Your task to perform on an android device: Open Google Chrome and click the shortcut for Amazon.com Image 0: 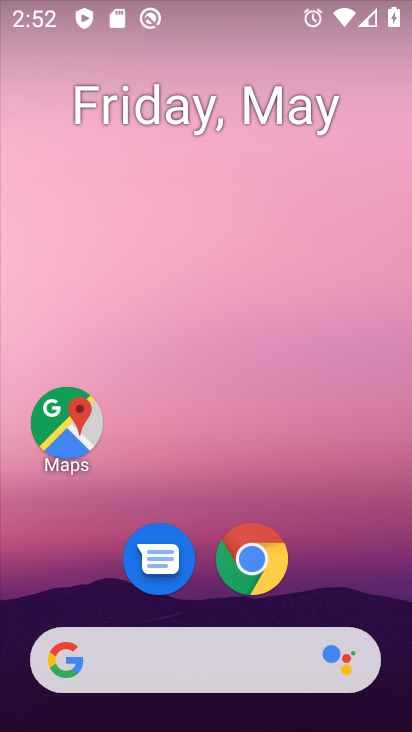
Step 0: drag from (317, 575) to (229, 227)
Your task to perform on an android device: Open Google Chrome and click the shortcut for Amazon.com Image 1: 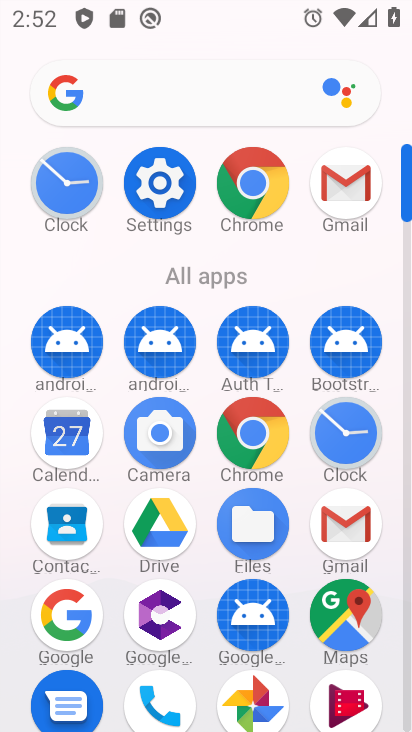
Step 1: click (237, 211)
Your task to perform on an android device: Open Google Chrome and click the shortcut for Amazon.com Image 2: 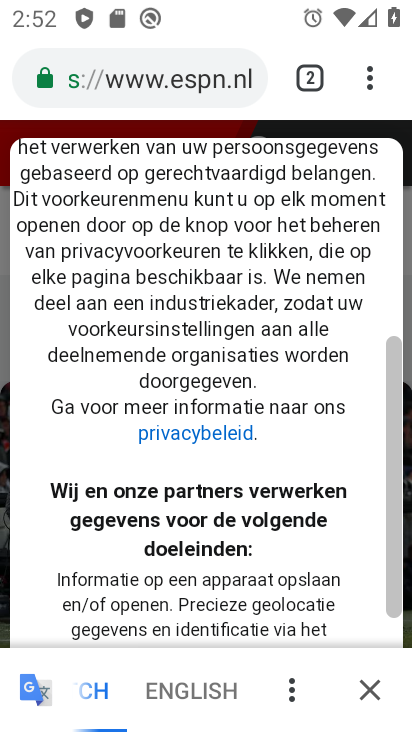
Step 2: click (379, 88)
Your task to perform on an android device: Open Google Chrome and click the shortcut for Amazon.com Image 3: 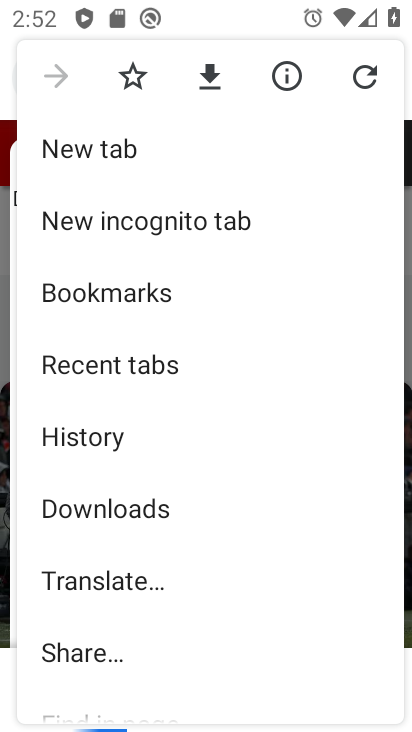
Step 3: click (142, 149)
Your task to perform on an android device: Open Google Chrome and click the shortcut for Amazon.com Image 4: 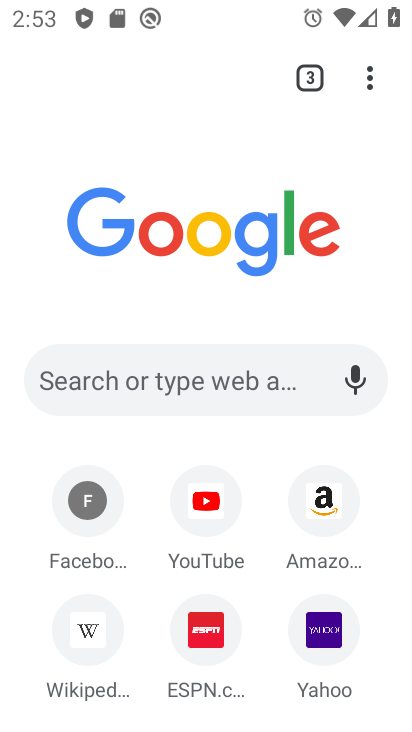
Step 4: click (321, 559)
Your task to perform on an android device: Open Google Chrome and click the shortcut for Amazon.com Image 5: 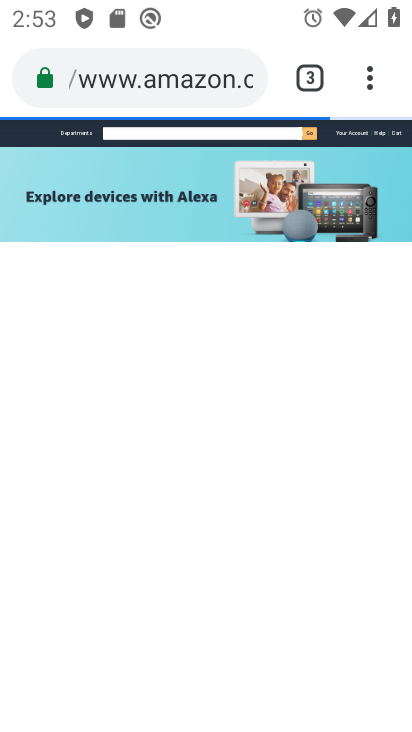
Step 5: task complete